Your task to perform on an android device: Open the Play Movies app and select the watchlist tab. Image 0: 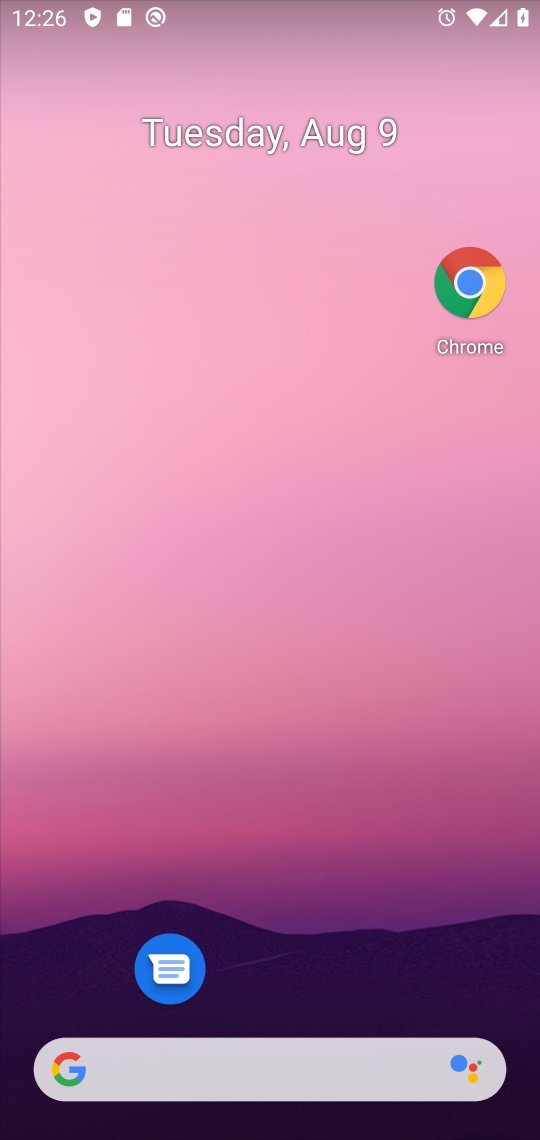
Step 0: drag from (218, 1023) to (249, 687)
Your task to perform on an android device: Open the Play Movies app and select the watchlist tab. Image 1: 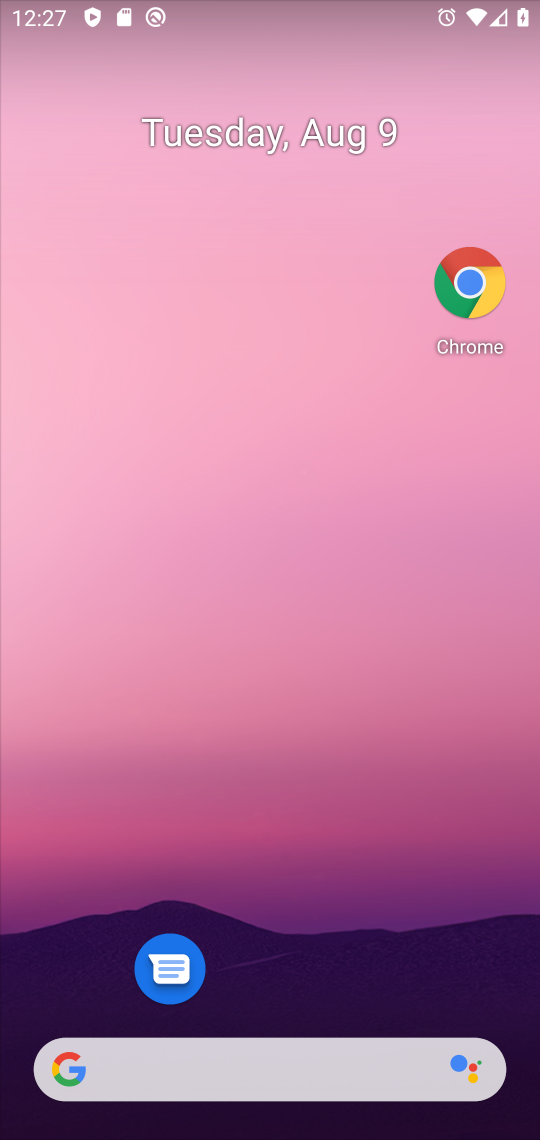
Step 1: drag from (230, 1015) to (323, 277)
Your task to perform on an android device: Open the Play Movies app and select the watchlist tab. Image 2: 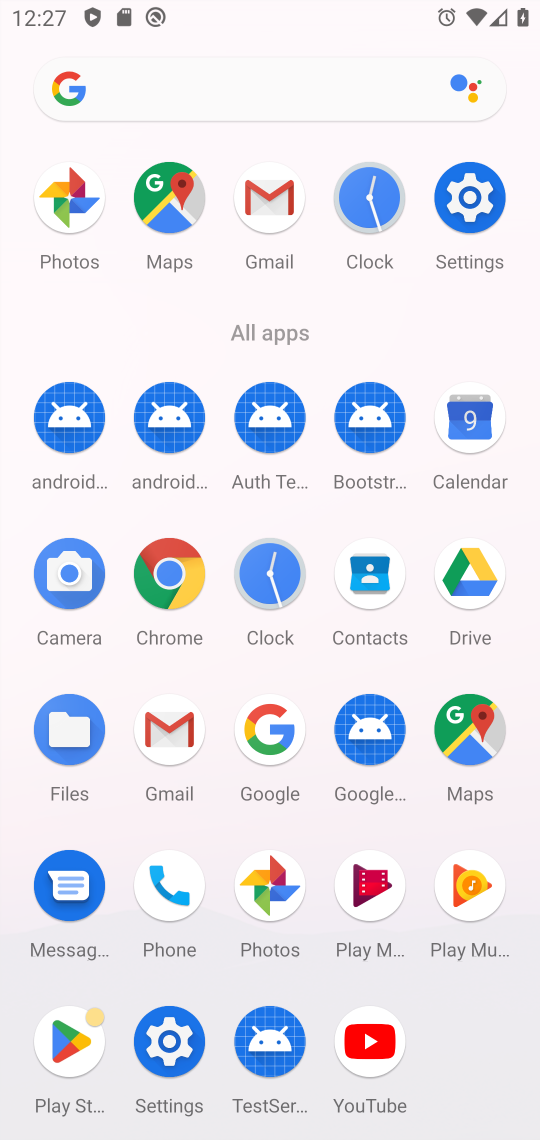
Step 2: click (346, 864)
Your task to perform on an android device: Open the Play Movies app and select the watchlist tab. Image 3: 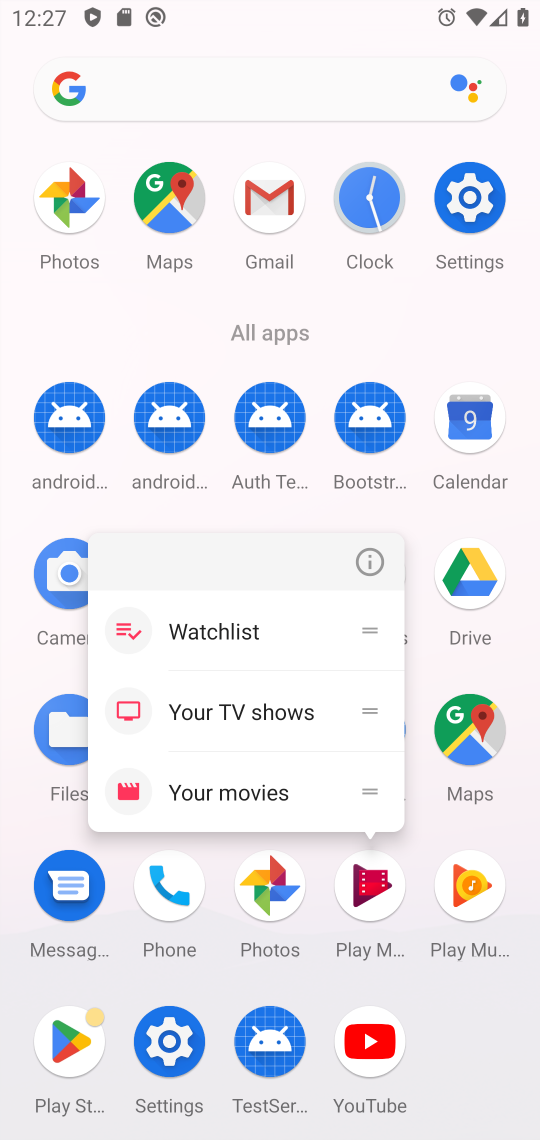
Step 3: click (374, 566)
Your task to perform on an android device: Open the Play Movies app and select the watchlist tab. Image 4: 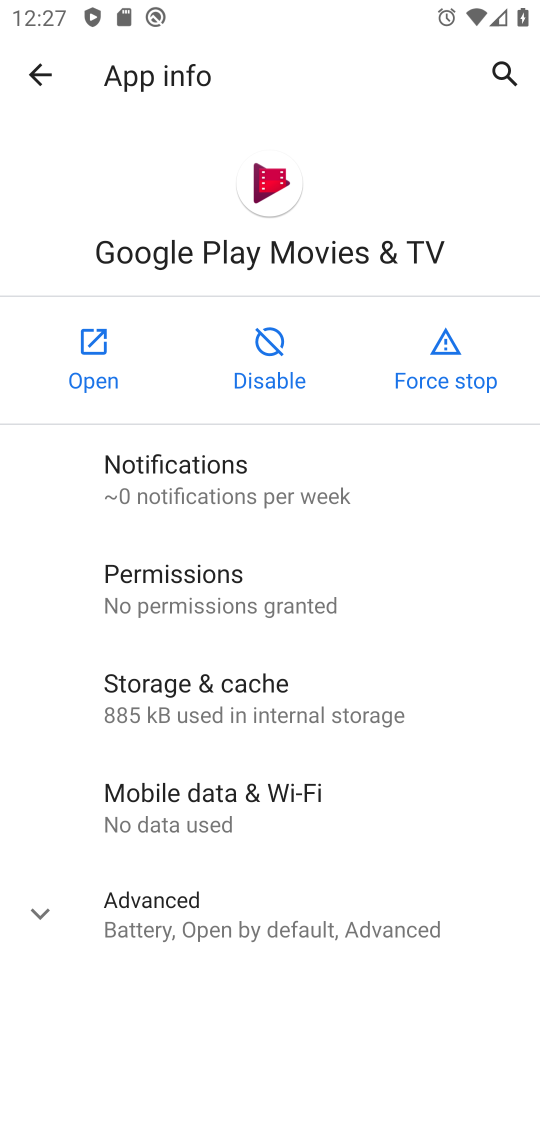
Step 4: click (71, 354)
Your task to perform on an android device: Open the Play Movies app and select the watchlist tab. Image 5: 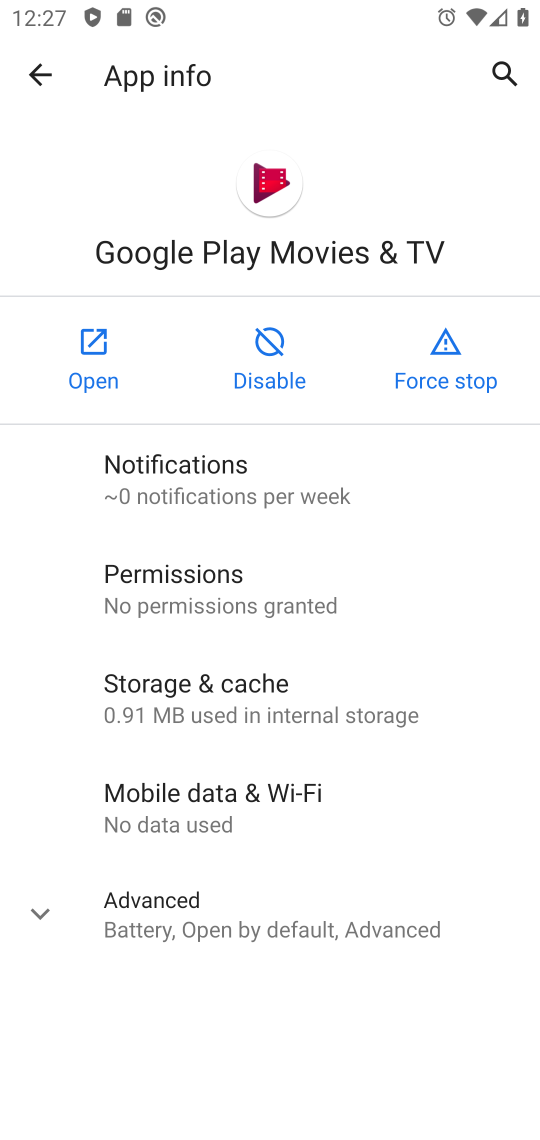
Step 5: click (74, 345)
Your task to perform on an android device: Open the Play Movies app and select the watchlist tab. Image 6: 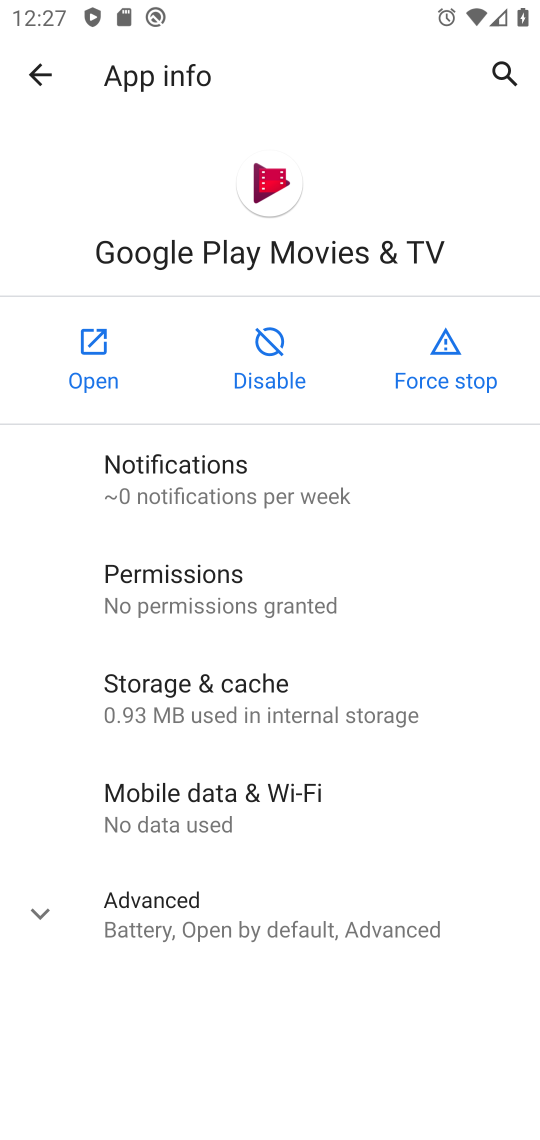
Step 6: click (97, 304)
Your task to perform on an android device: Open the Play Movies app and select the watchlist tab. Image 7: 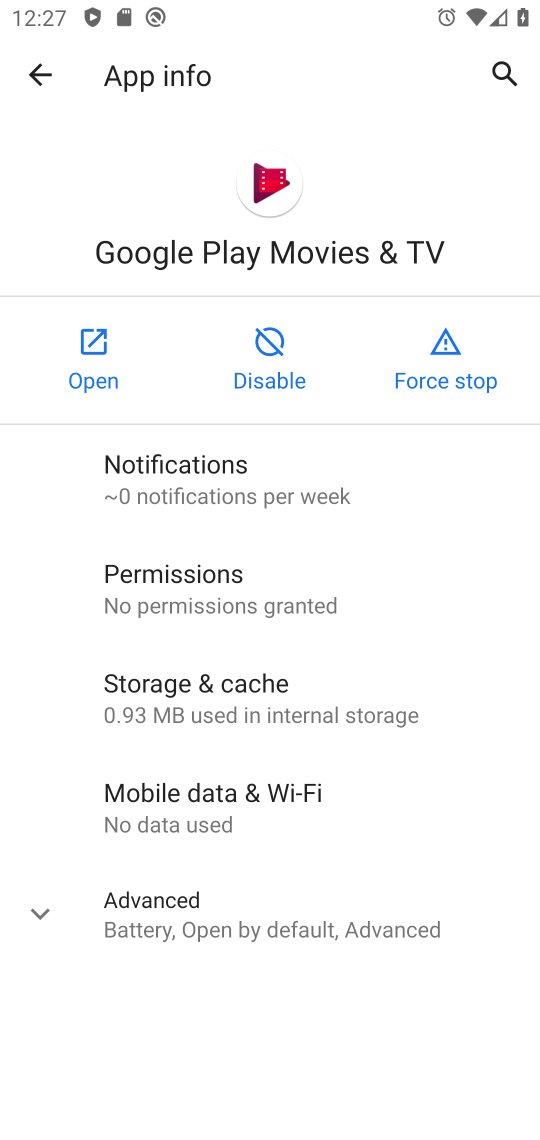
Step 7: task complete